Your task to perform on an android device: Go to accessibility settings Image 0: 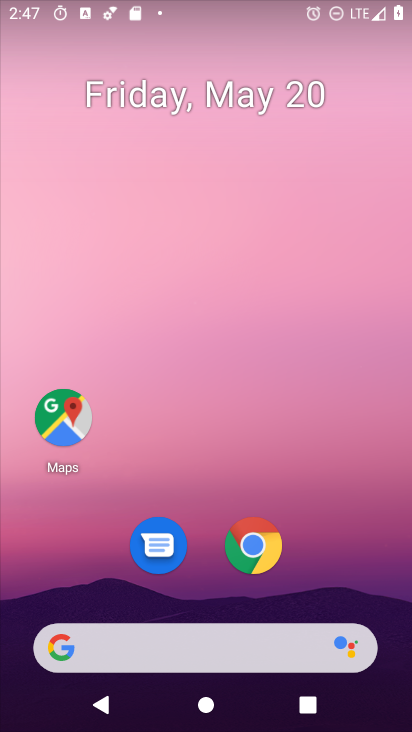
Step 0: drag from (356, 620) to (305, 123)
Your task to perform on an android device: Go to accessibility settings Image 1: 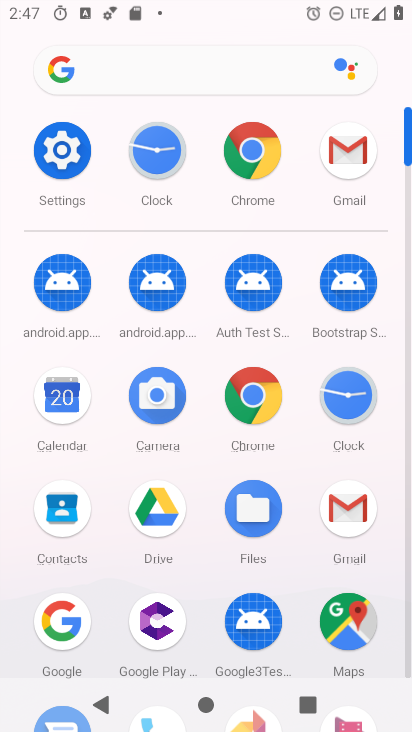
Step 1: click (59, 165)
Your task to perform on an android device: Go to accessibility settings Image 2: 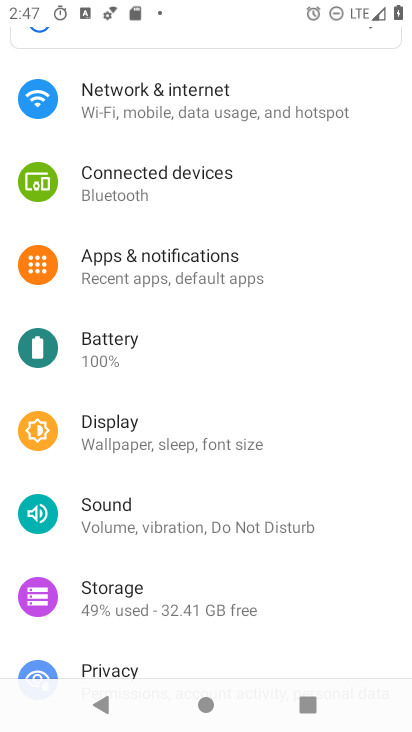
Step 2: drag from (243, 600) to (248, 193)
Your task to perform on an android device: Go to accessibility settings Image 3: 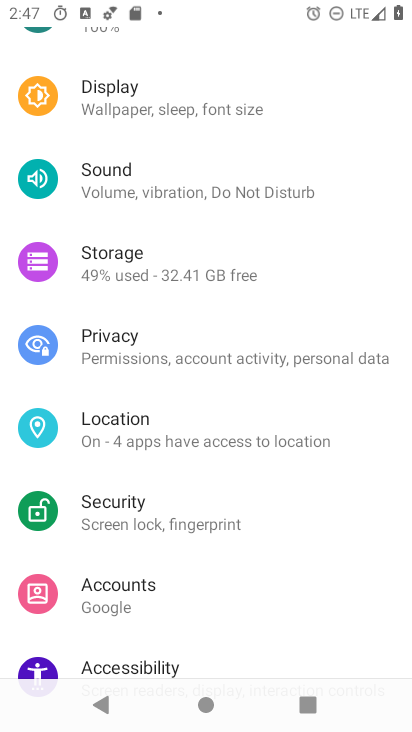
Step 3: drag from (188, 657) to (211, 368)
Your task to perform on an android device: Go to accessibility settings Image 4: 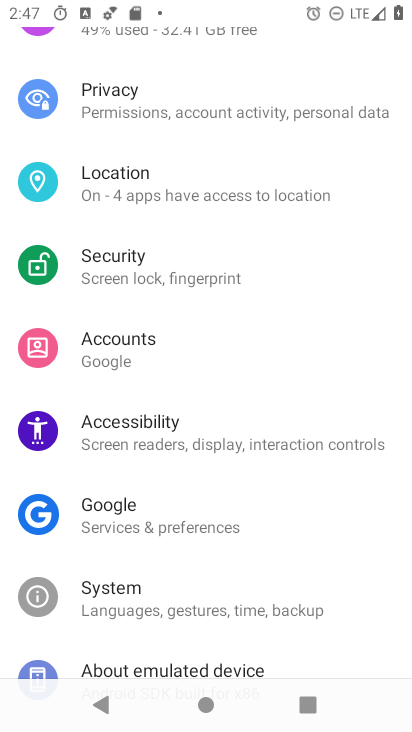
Step 4: click (152, 428)
Your task to perform on an android device: Go to accessibility settings Image 5: 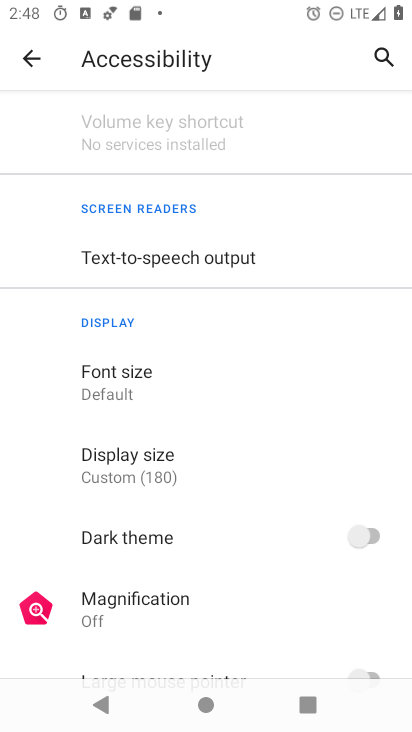
Step 5: task complete